Your task to perform on an android device: open app "Google Duo" (install if not already installed) Image 0: 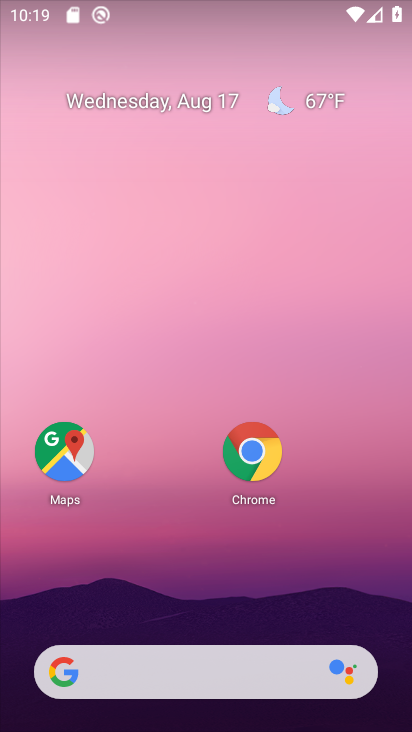
Step 0: click (250, 277)
Your task to perform on an android device: open app "Google Duo" (install if not already installed) Image 1: 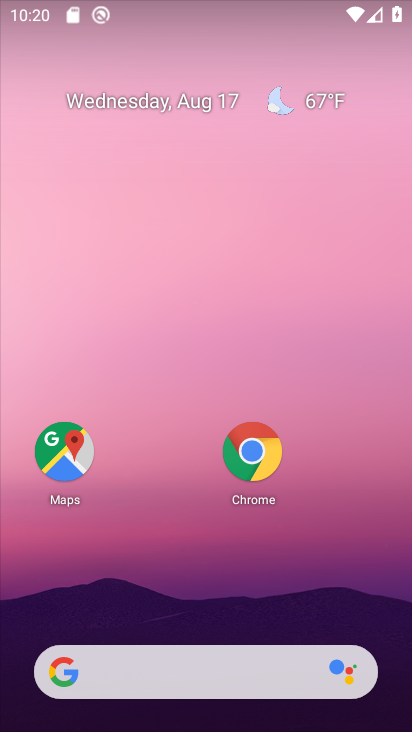
Step 1: drag from (195, 610) to (243, 4)
Your task to perform on an android device: open app "Google Duo" (install if not already installed) Image 2: 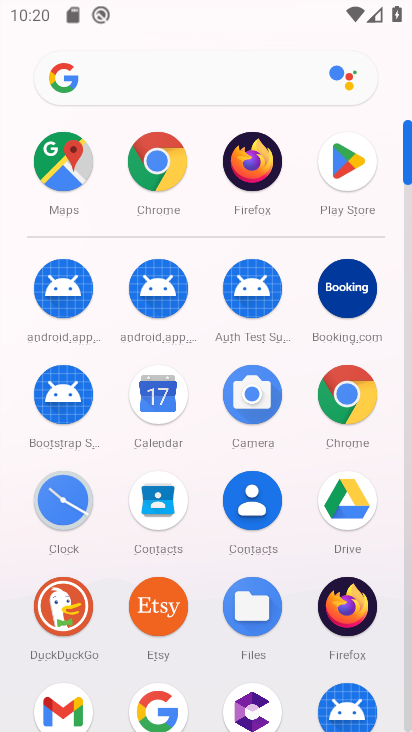
Step 2: click (347, 155)
Your task to perform on an android device: open app "Google Duo" (install if not already installed) Image 3: 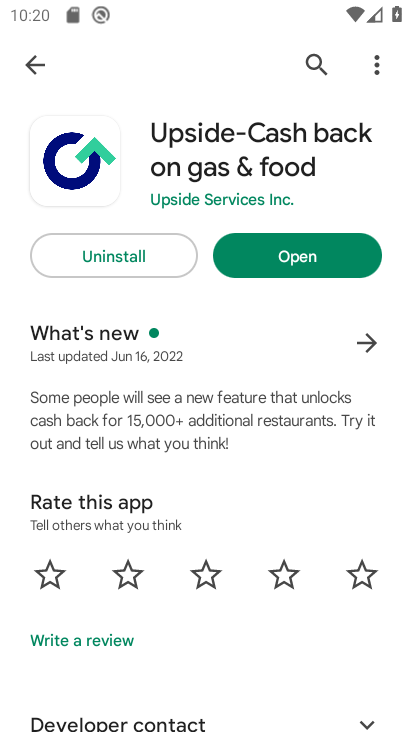
Step 3: click (23, 61)
Your task to perform on an android device: open app "Google Duo" (install if not already installed) Image 4: 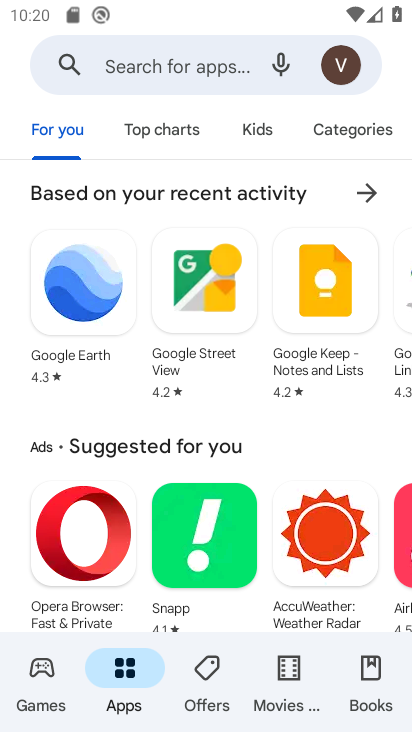
Step 4: click (146, 68)
Your task to perform on an android device: open app "Google Duo" (install if not already installed) Image 5: 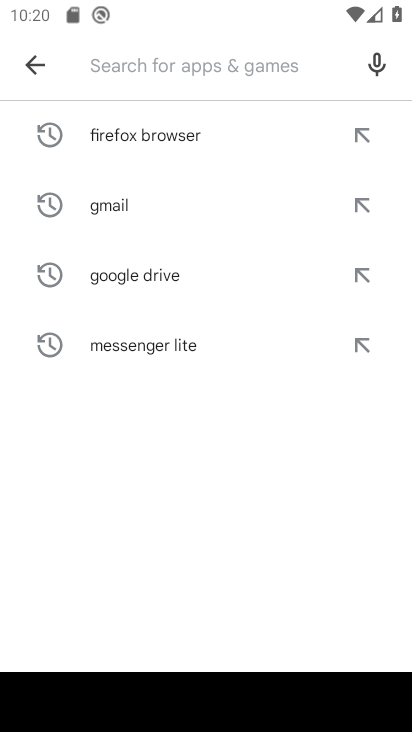
Step 5: type "Google Duo"
Your task to perform on an android device: open app "Google Duo" (install if not already installed) Image 6: 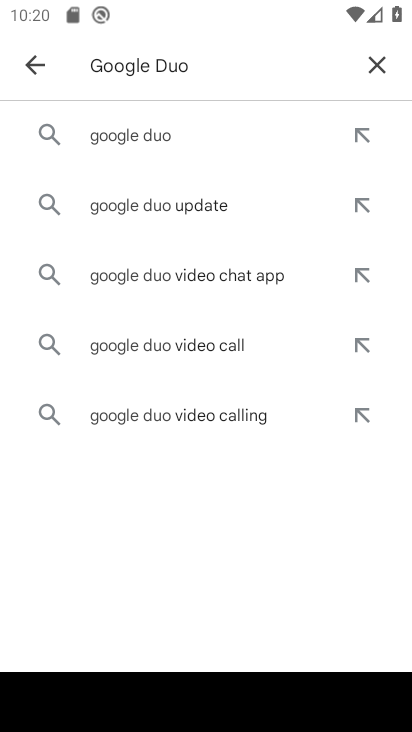
Step 6: click (112, 135)
Your task to perform on an android device: open app "Google Duo" (install if not already installed) Image 7: 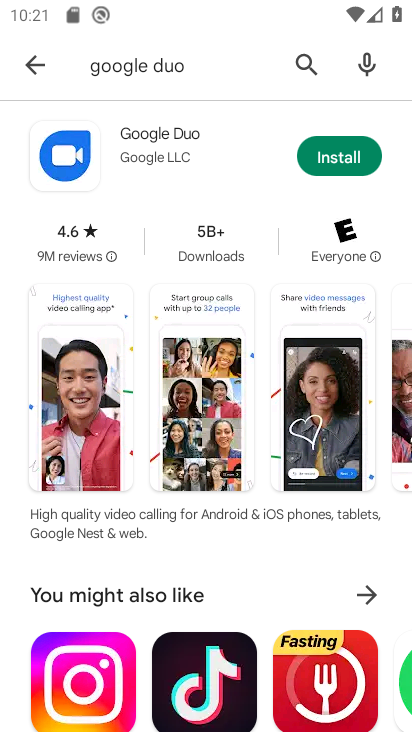
Step 7: click (347, 149)
Your task to perform on an android device: open app "Google Duo" (install if not already installed) Image 8: 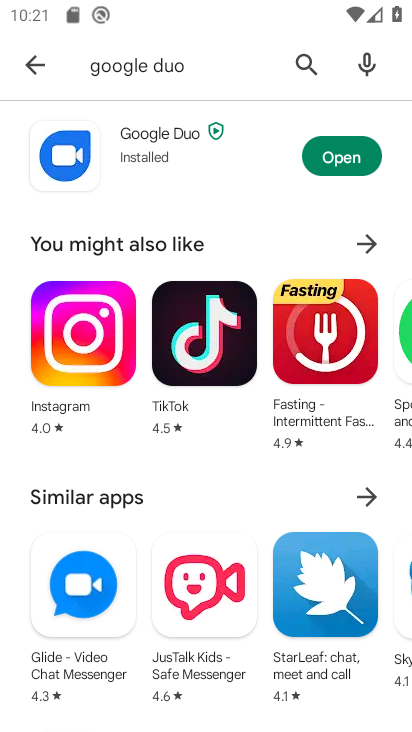
Step 8: click (347, 149)
Your task to perform on an android device: open app "Google Duo" (install if not already installed) Image 9: 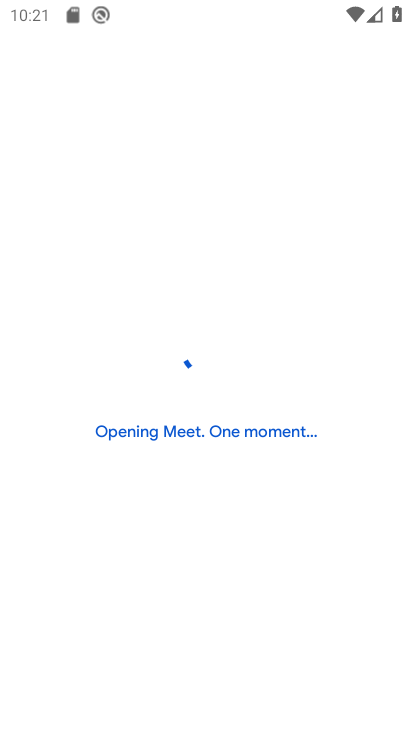
Step 9: task complete